Your task to perform on an android device: Go to Google Image 0: 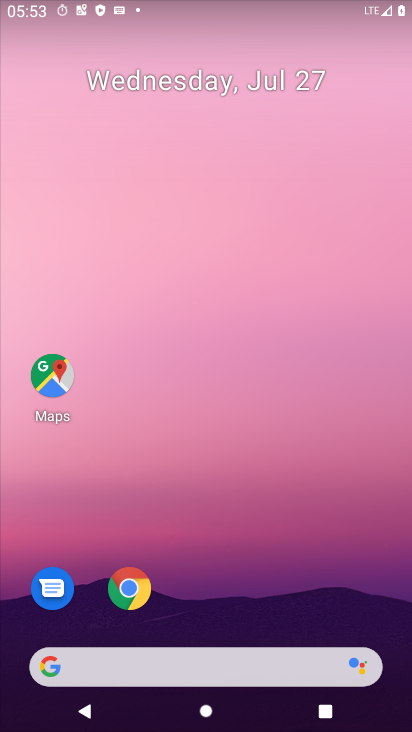
Step 0: drag from (319, 656) to (404, 182)
Your task to perform on an android device: Go to Google Image 1: 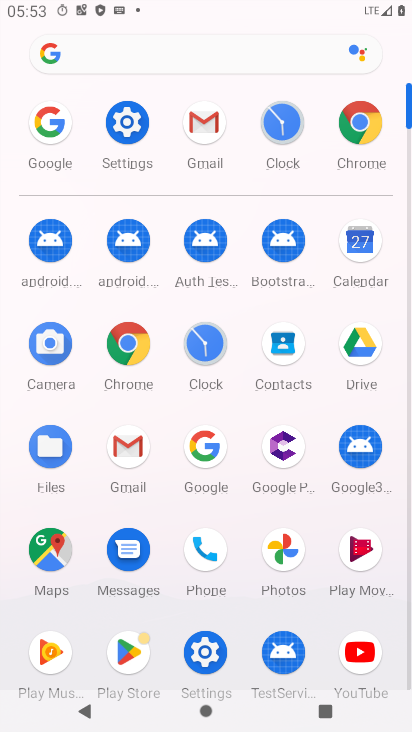
Step 1: drag from (201, 654) to (378, 17)
Your task to perform on an android device: Go to Google Image 2: 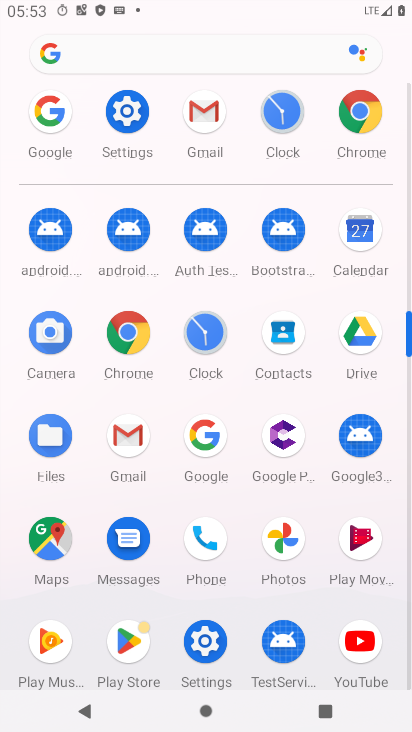
Step 2: click (204, 446)
Your task to perform on an android device: Go to Google Image 3: 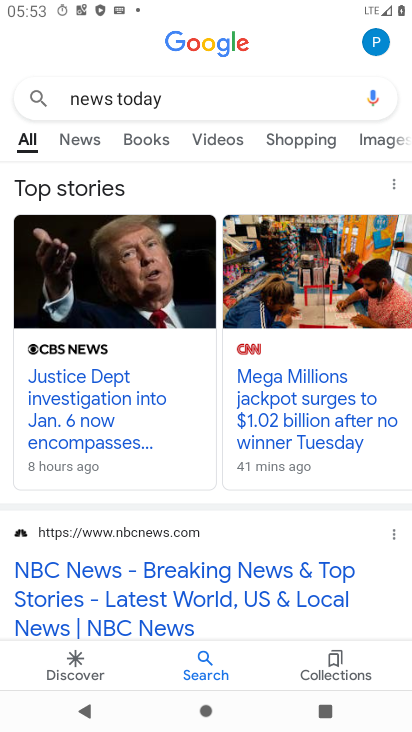
Step 3: task complete